Your task to perform on an android device: Turn off the flashlight Image 0: 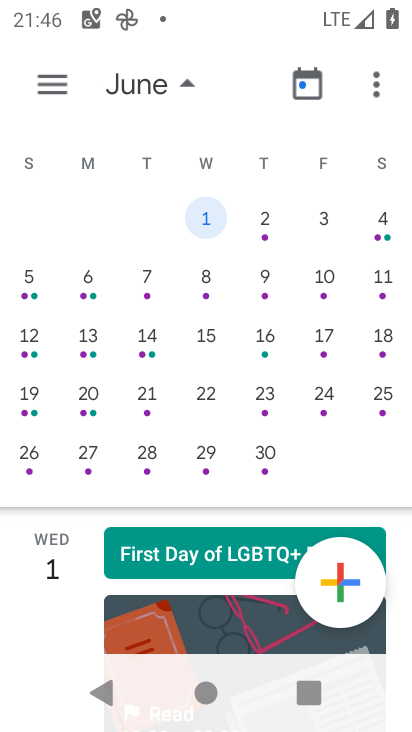
Step 0: press home button
Your task to perform on an android device: Turn off the flashlight Image 1: 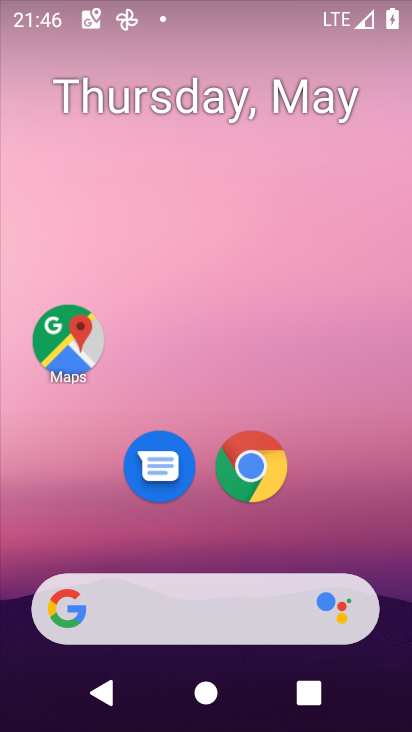
Step 1: drag from (326, 512) to (315, 153)
Your task to perform on an android device: Turn off the flashlight Image 2: 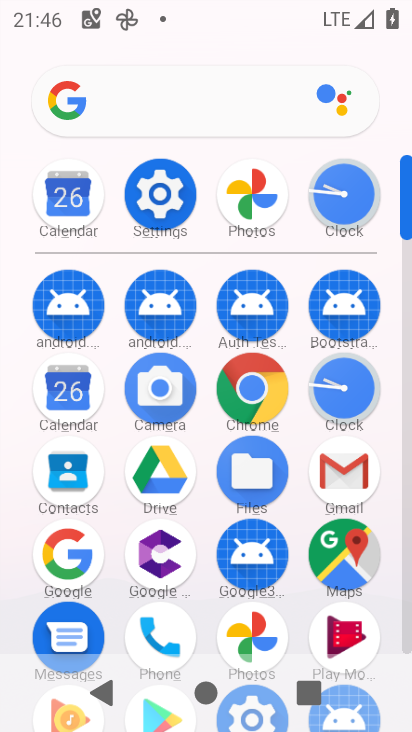
Step 2: click (161, 203)
Your task to perform on an android device: Turn off the flashlight Image 3: 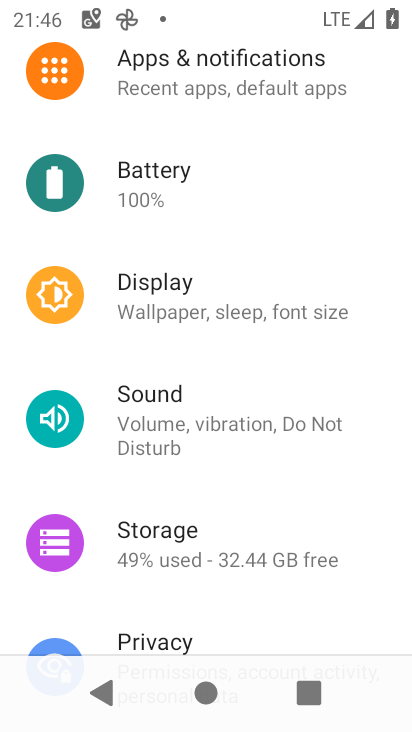
Step 3: task complete